Your task to perform on an android device: turn off data saver in the chrome app Image 0: 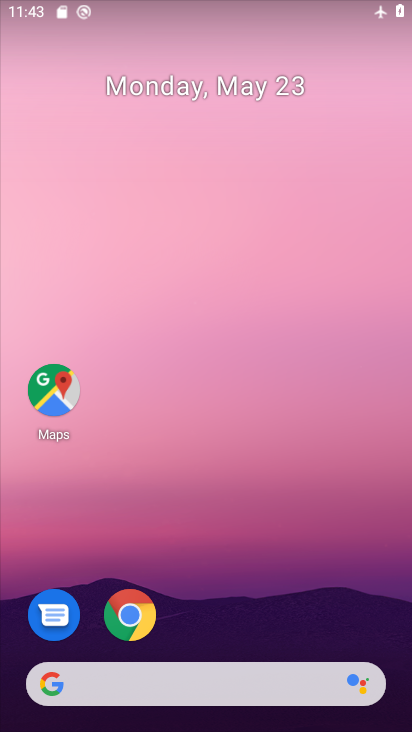
Step 0: click (130, 615)
Your task to perform on an android device: turn off data saver in the chrome app Image 1: 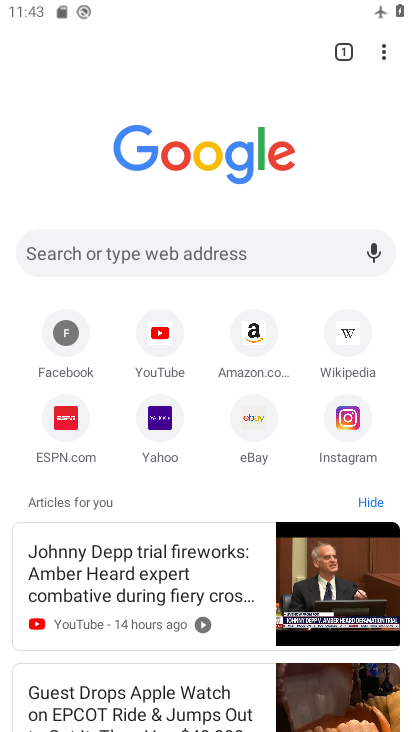
Step 1: click (382, 50)
Your task to perform on an android device: turn off data saver in the chrome app Image 2: 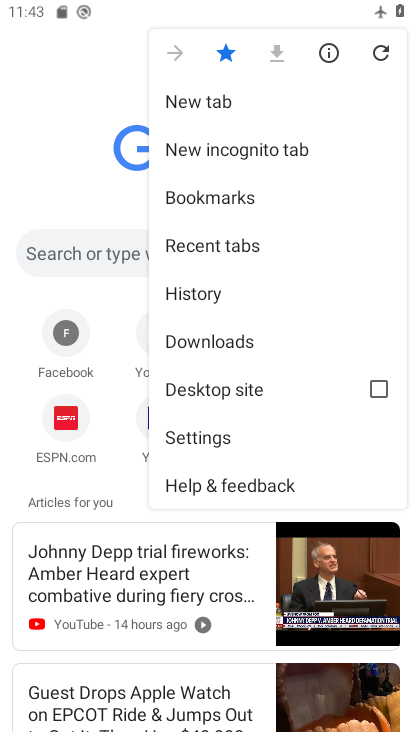
Step 2: click (205, 437)
Your task to perform on an android device: turn off data saver in the chrome app Image 3: 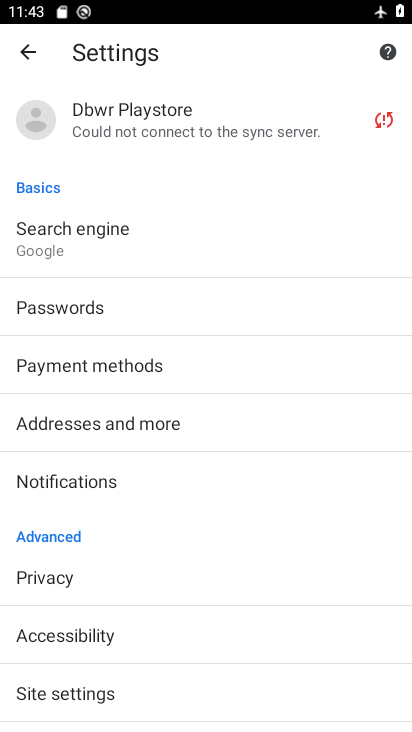
Step 3: drag from (105, 571) to (176, 474)
Your task to perform on an android device: turn off data saver in the chrome app Image 4: 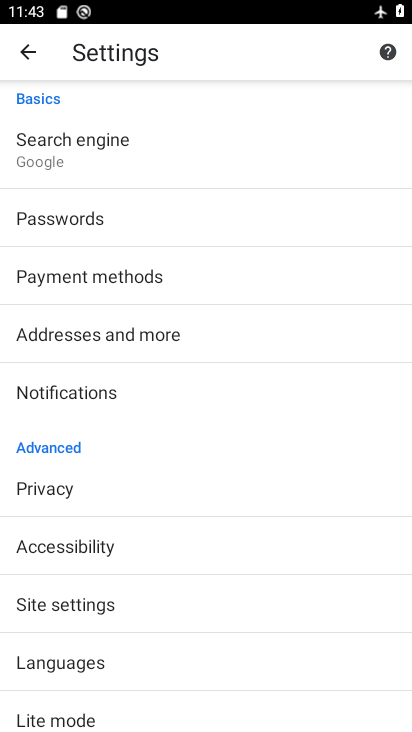
Step 4: drag from (122, 627) to (188, 542)
Your task to perform on an android device: turn off data saver in the chrome app Image 5: 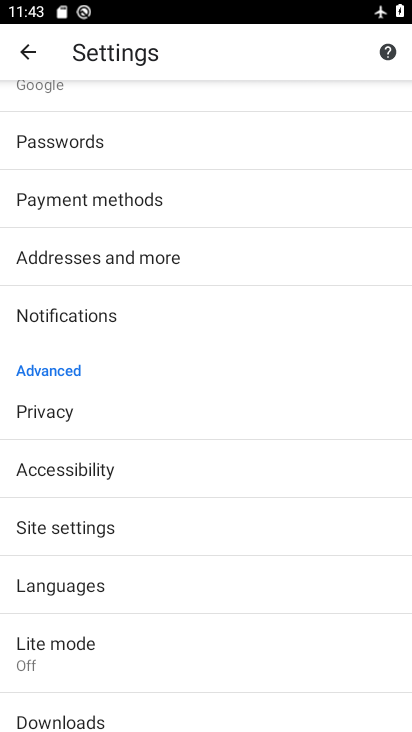
Step 5: click (82, 646)
Your task to perform on an android device: turn off data saver in the chrome app Image 6: 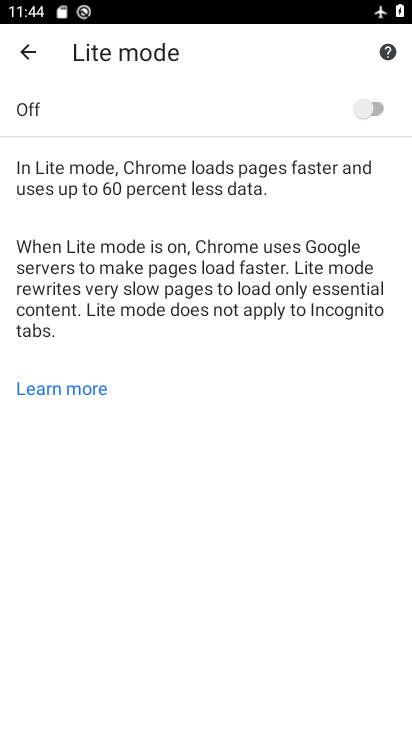
Step 6: task complete